Your task to perform on an android device: Search for vegetarian restaurants on Maps Image 0: 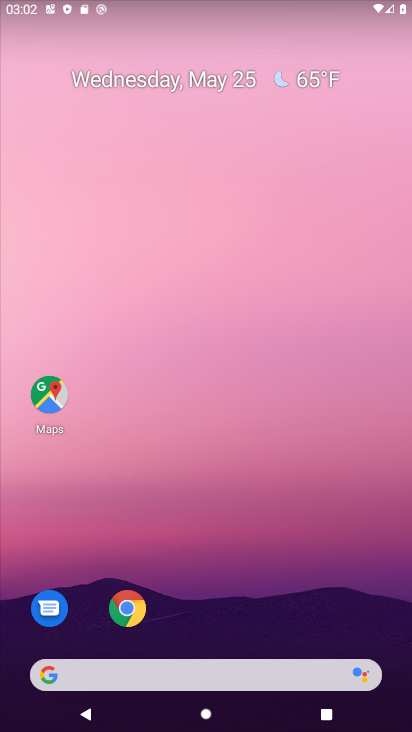
Step 0: click (41, 397)
Your task to perform on an android device: Search for vegetarian restaurants on Maps Image 1: 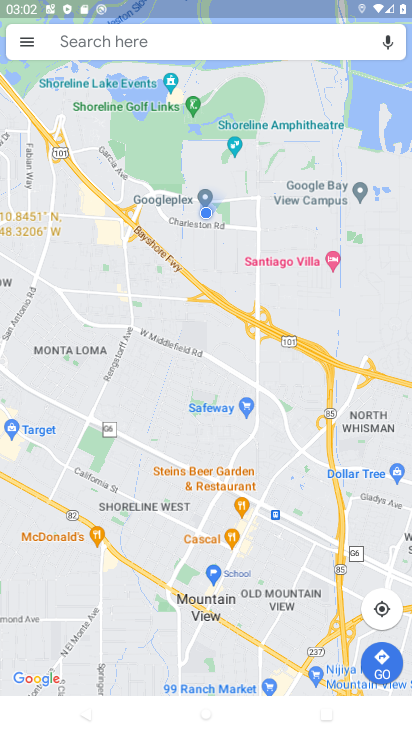
Step 1: click (65, 39)
Your task to perform on an android device: Search for vegetarian restaurants on Maps Image 2: 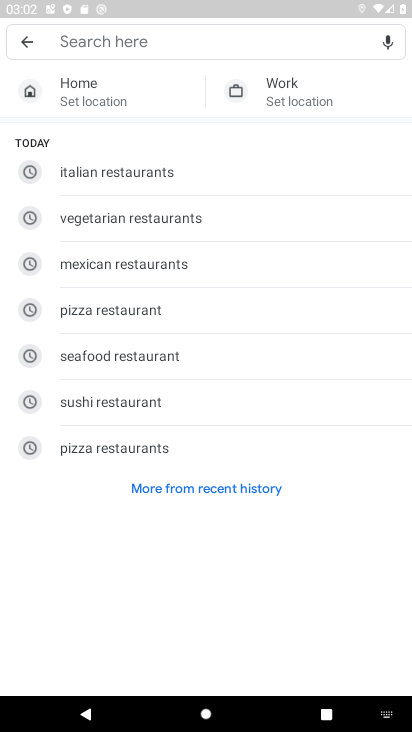
Step 2: type "vegetable restaurants"
Your task to perform on an android device: Search for vegetarian restaurants on Maps Image 3: 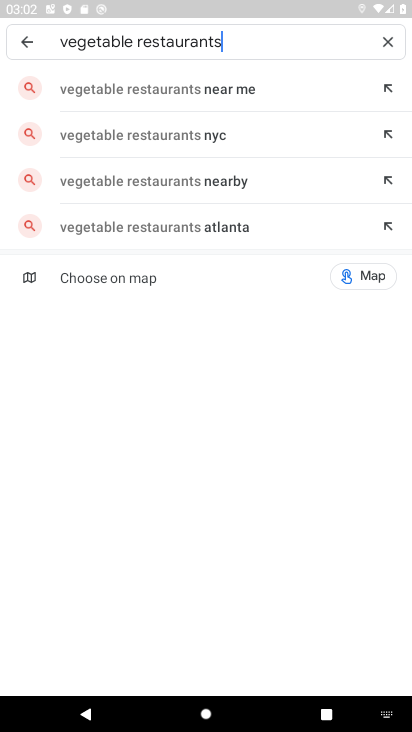
Step 3: click (119, 95)
Your task to perform on an android device: Search for vegetarian restaurants on Maps Image 4: 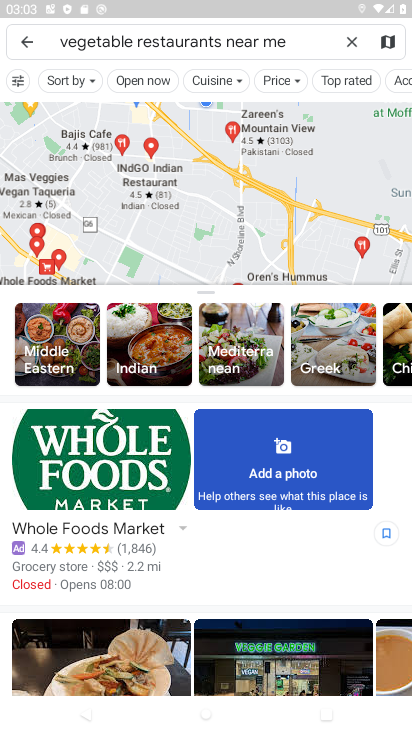
Step 4: task complete